Your task to perform on an android device: move an email to a new category in the gmail app Image 0: 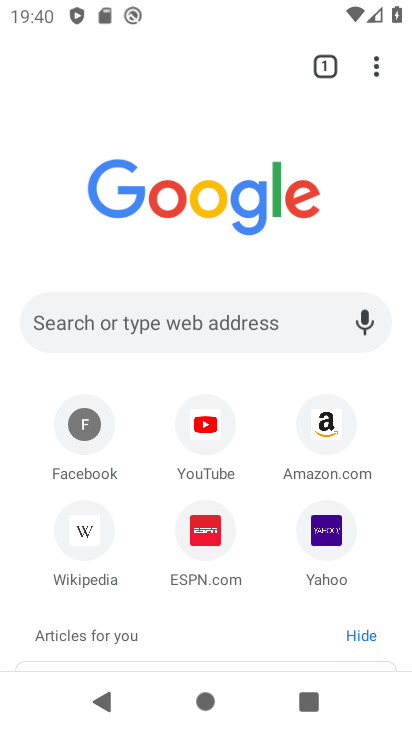
Step 0: press home button
Your task to perform on an android device: move an email to a new category in the gmail app Image 1: 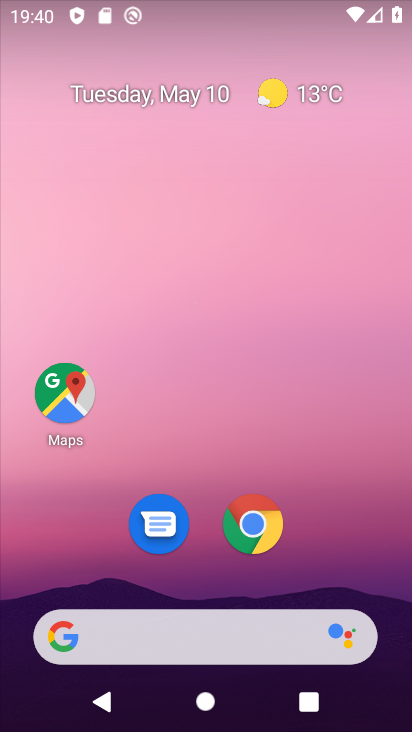
Step 1: drag from (311, 534) to (256, 87)
Your task to perform on an android device: move an email to a new category in the gmail app Image 2: 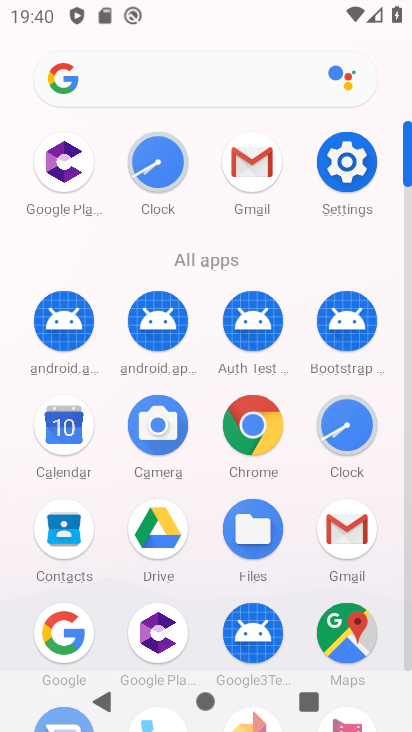
Step 2: click (263, 172)
Your task to perform on an android device: move an email to a new category in the gmail app Image 3: 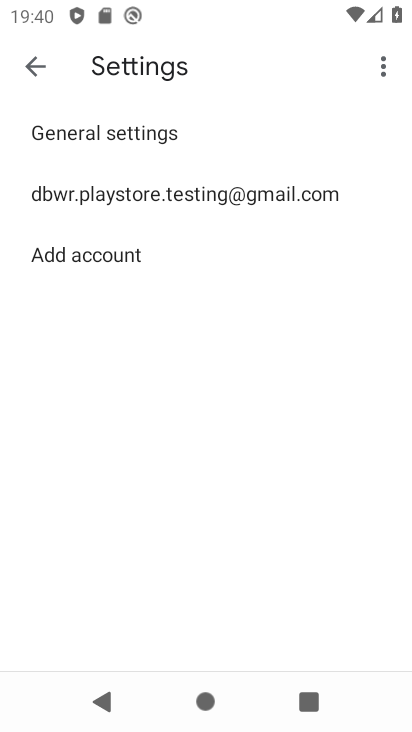
Step 3: click (35, 63)
Your task to perform on an android device: move an email to a new category in the gmail app Image 4: 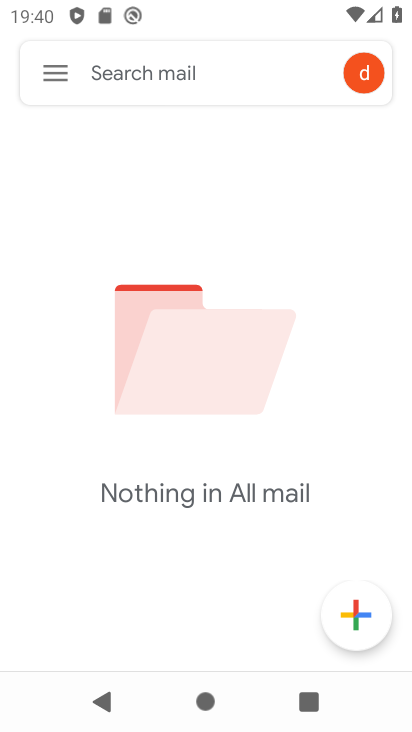
Step 4: task complete